Your task to perform on an android device: Open ESPN.com Image 0: 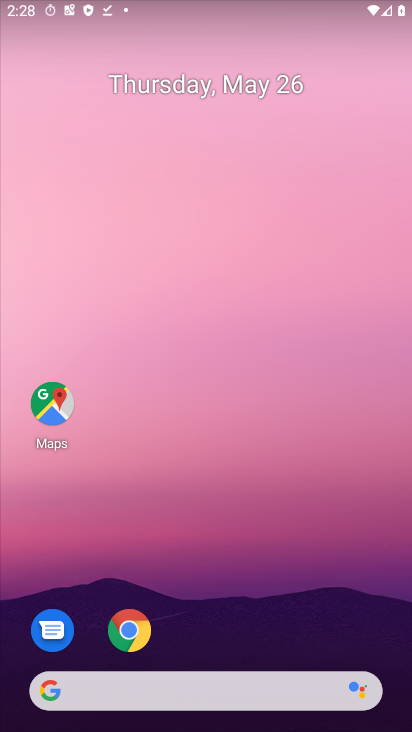
Step 0: click (133, 635)
Your task to perform on an android device: Open ESPN.com Image 1: 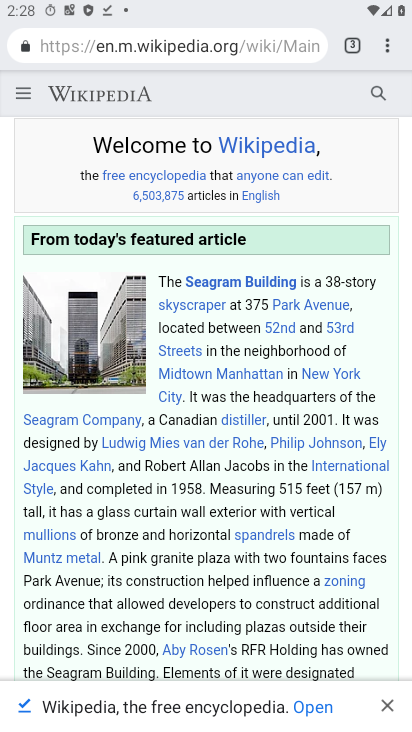
Step 1: click (349, 44)
Your task to perform on an android device: Open ESPN.com Image 2: 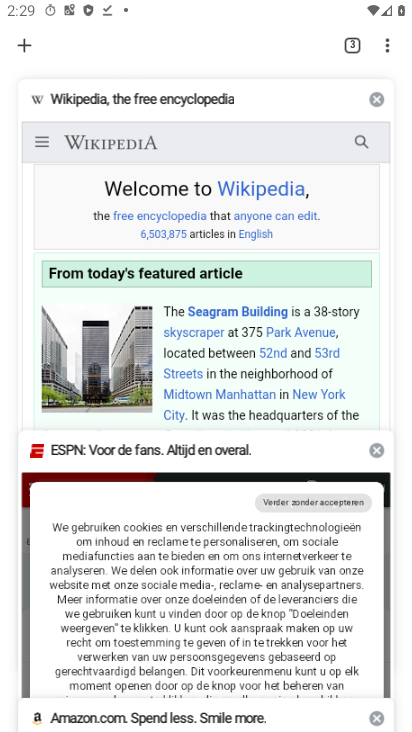
Step 2: click (103, 454)
Your task to perform on an android device: Open ESPN.com Image 3: 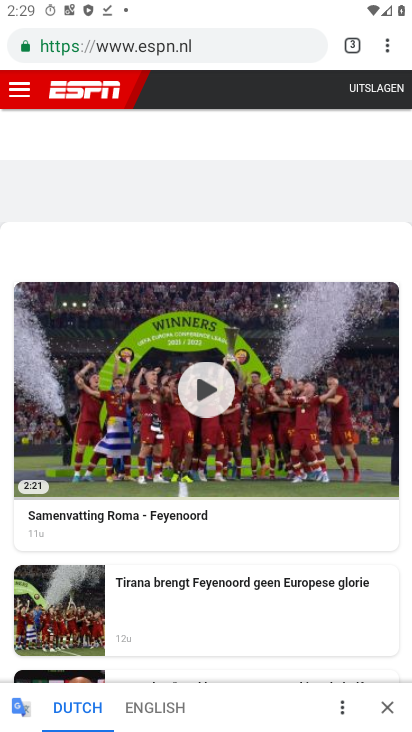
Step 3: task complete